Your task to perform on an android device: toggle javascript in the chrome app Image 0: 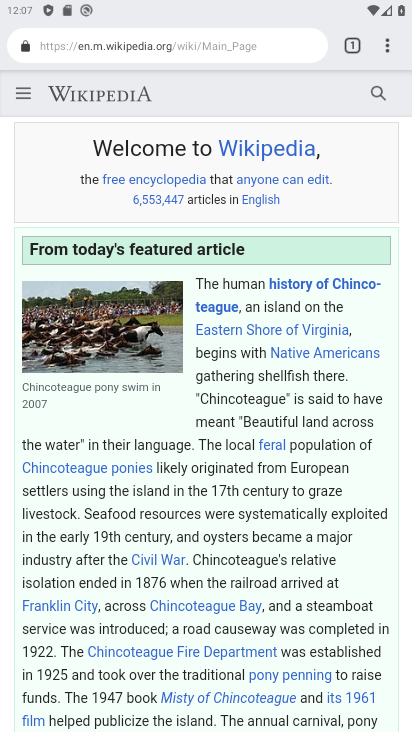
Step 0: click (377, 43)
Your task to perform on an android device: toggle javascript in the chrome app Image 1: 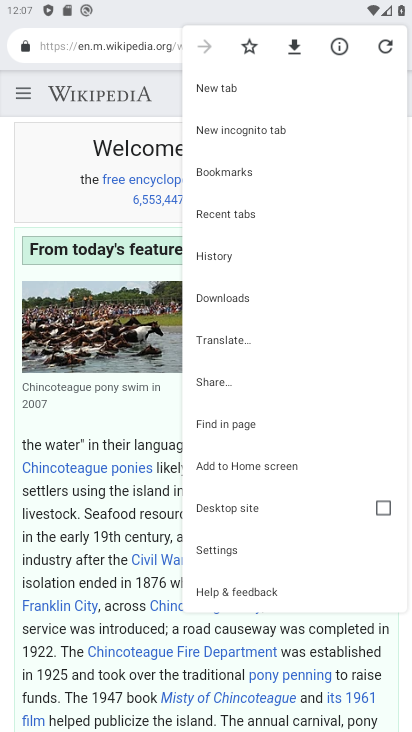
Step 1: click (214, 547)
Your task to perform on an android device: toggle javascript in the chrome app Image 2: 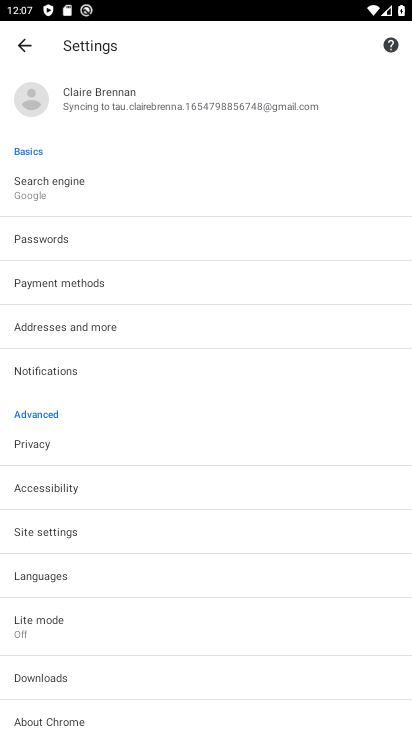
Step 2: click (57, 539)
Your task to perform on an android device: toggle javascript in the chrome app Image 3: 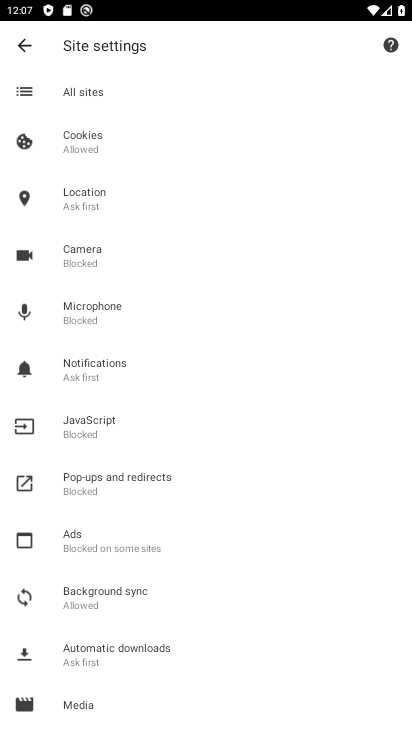
Step 3: click (99, 428)
Your task to perform on an android device: toggle javascript in the chrome app Image 4: 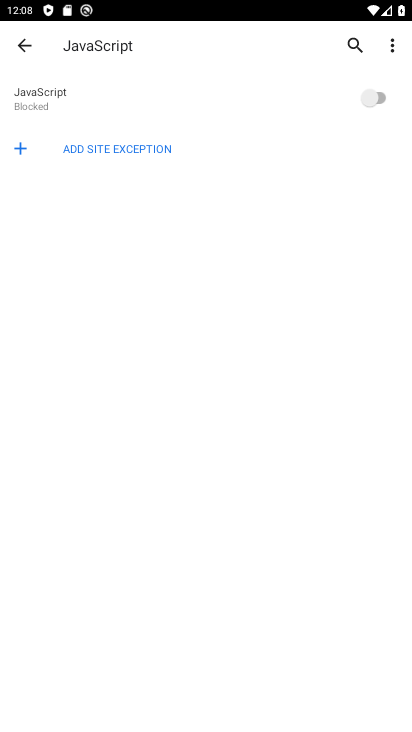
Step 4: click (394, 102)
Your task to perform on an android device: toggle javascript in the chrome app Image 5: 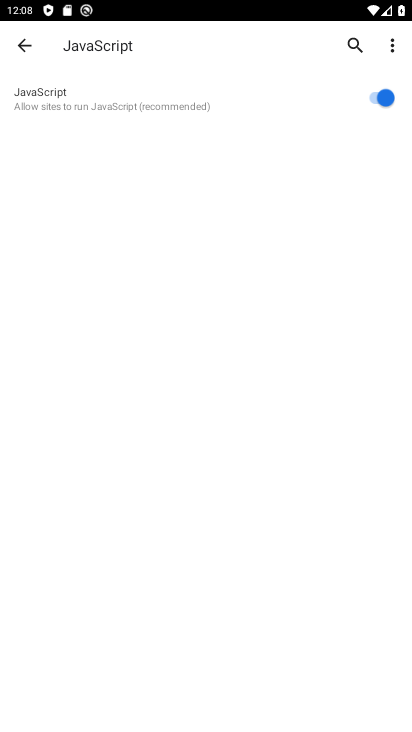
Step 5: task complete